Your task to perform on an android device: find photos in the google photos app Image 0: 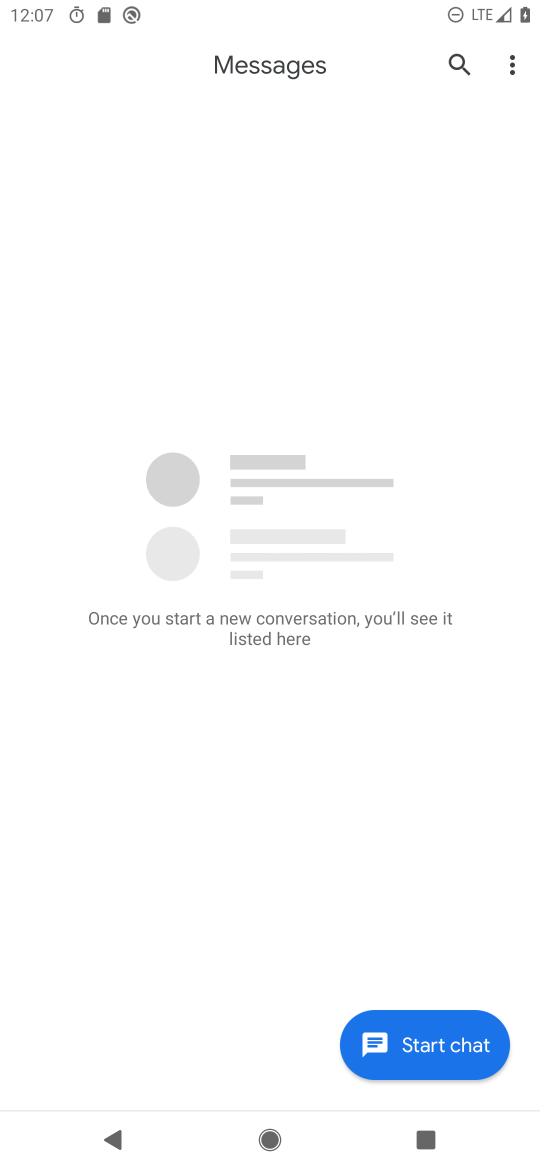
Step 0: press home button
Your task to perform on an android device: find photos in the google photos app Image 1: 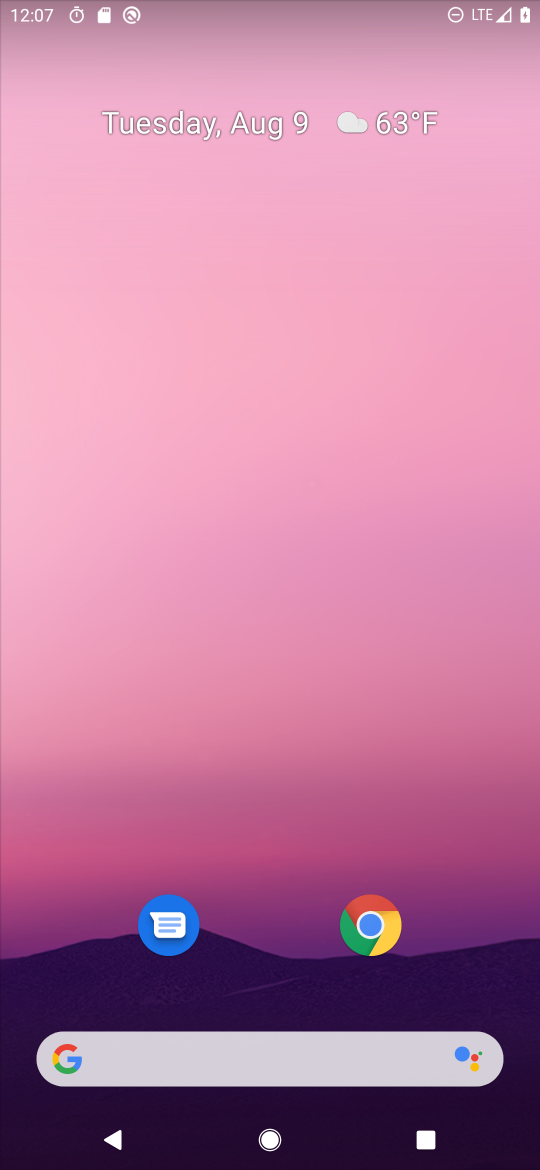
Step 1: drag from (272, 482) to (335, 100)
Your task to perform on an android device: find photos in the google photos app Image 2: 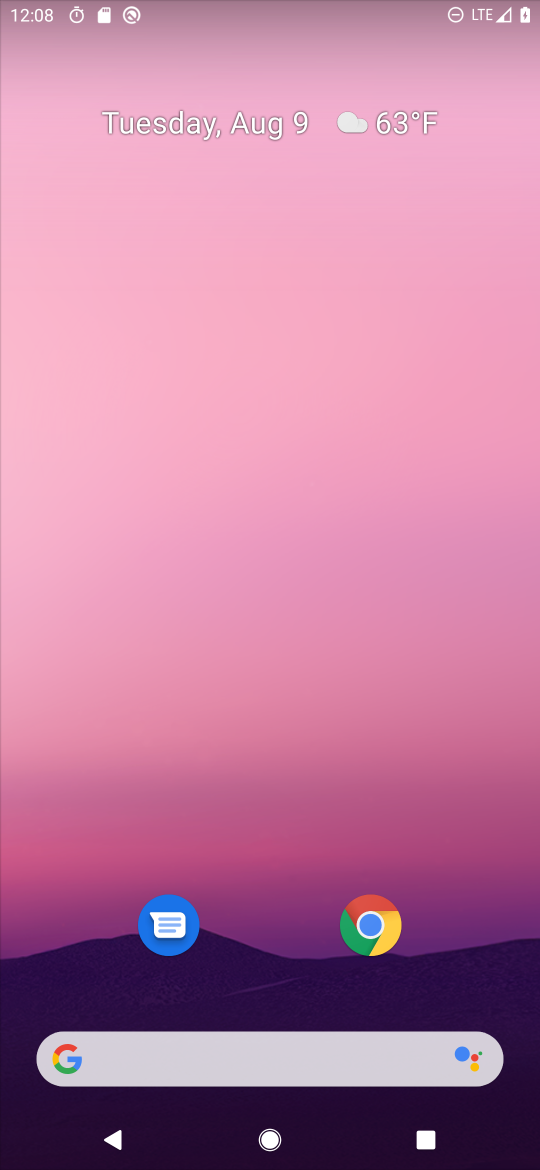
Step 2: drag from (248, 918) to (326, 87)
Your task to perform on an android device: find photos in the google photos app Image 3: 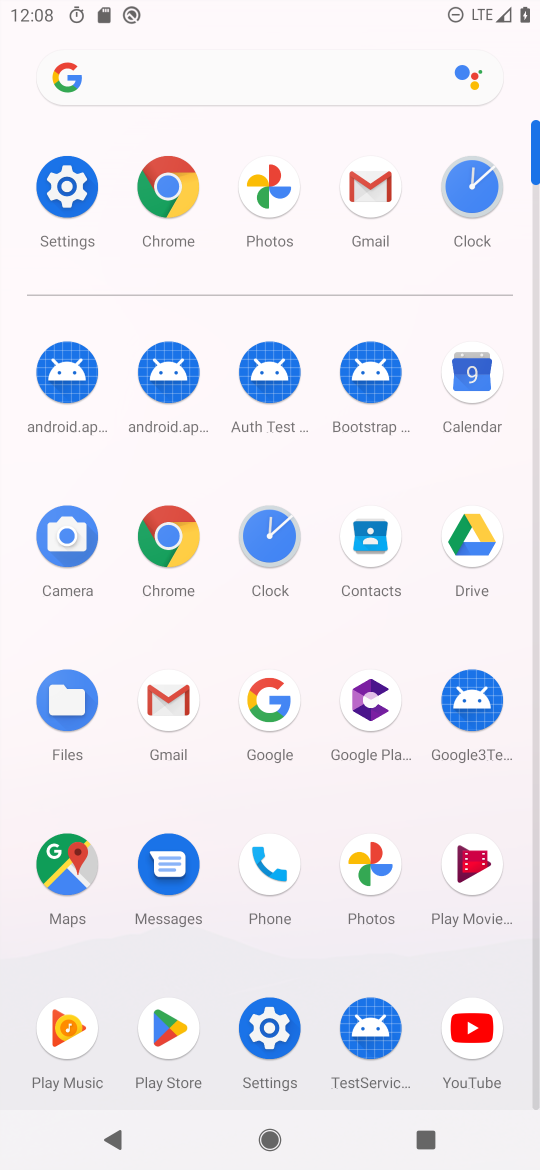
Step 3: click (369, 855)
Your task to perform on an android device: find photos in the google photos app Image 4: 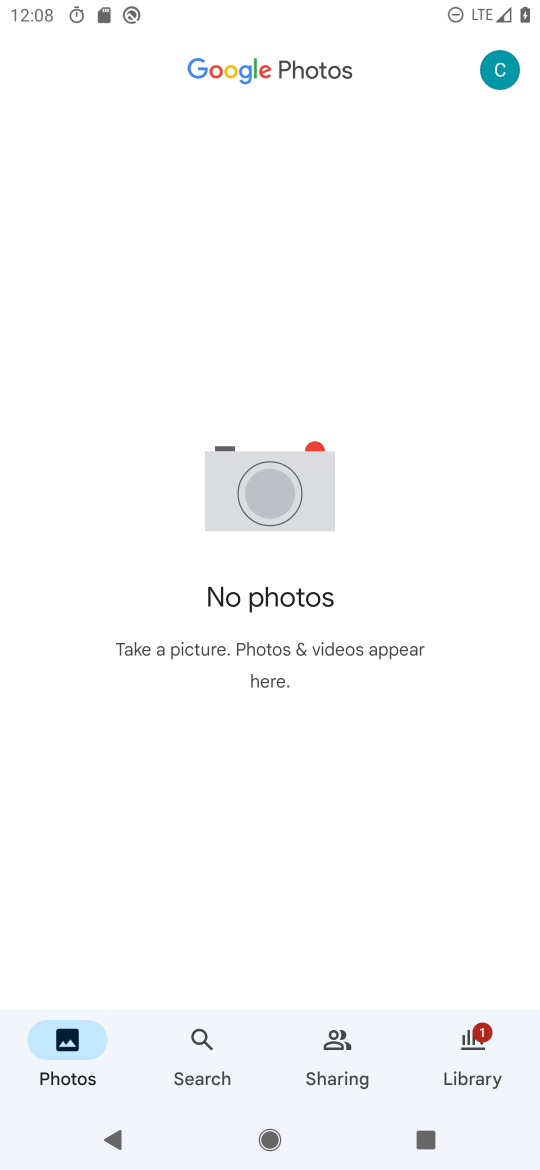
Step 4: task complete